Your task to perform on an android device: check android version Image 0: 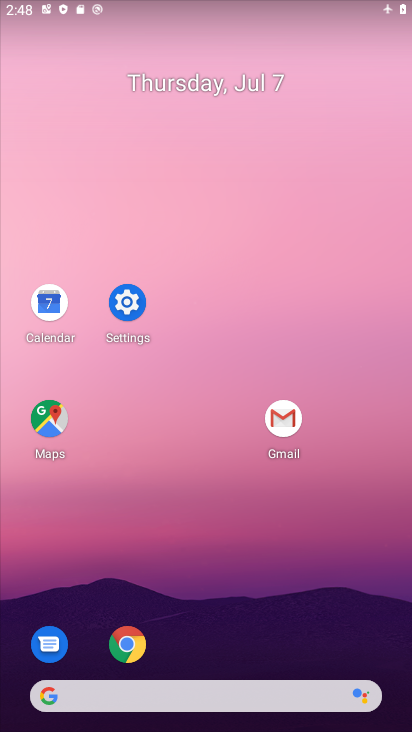
Step 0: click (121, 294)
Your task to perform on an android device: check android version Image 1: 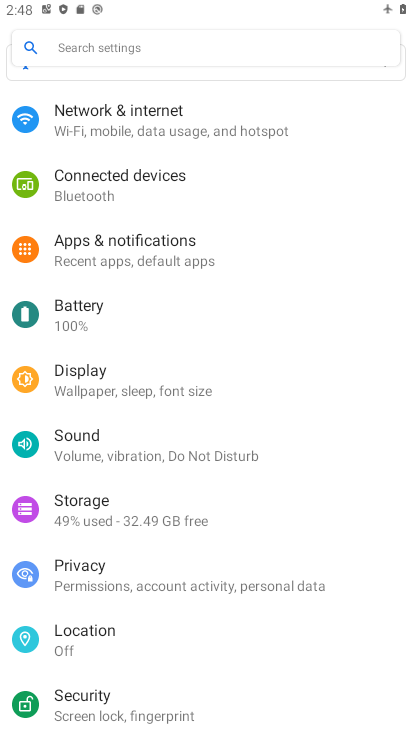
Step 1: drag from (135, 678) to (125, 245)
Your task to perform on an android device: check android version Image 2: 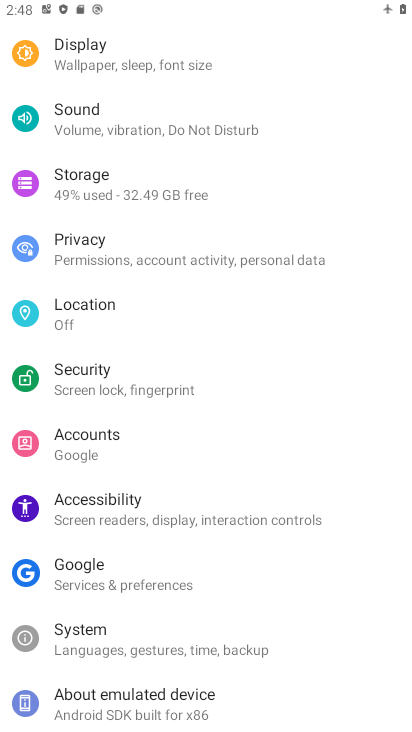
Step 2: click (110, 693)
Your task to perform on an android device: check android version Image 3: 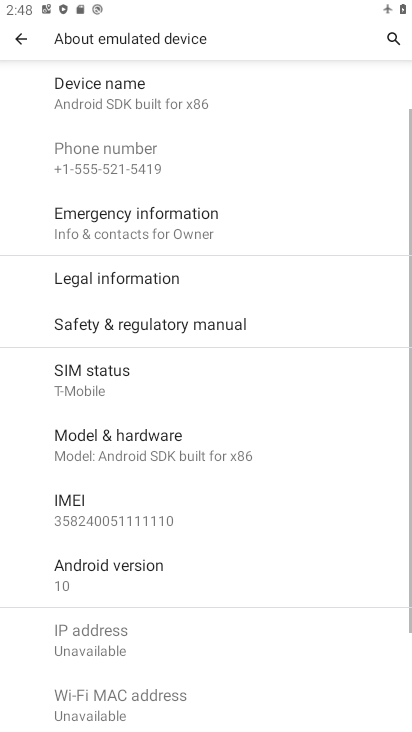
Step 3: drag from (276, 661) to (242, 263)
Your task to perform on an android device: check android version Image 4: 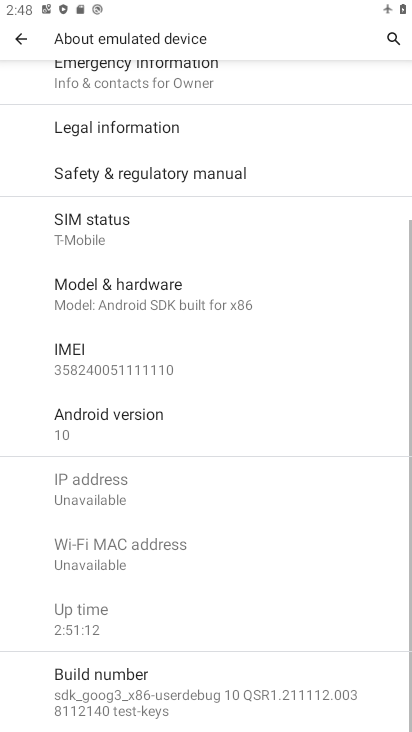
Step 4: drag from (333, 195) to (301, 658)
Your task to perform on an android device: check android version Image 5: 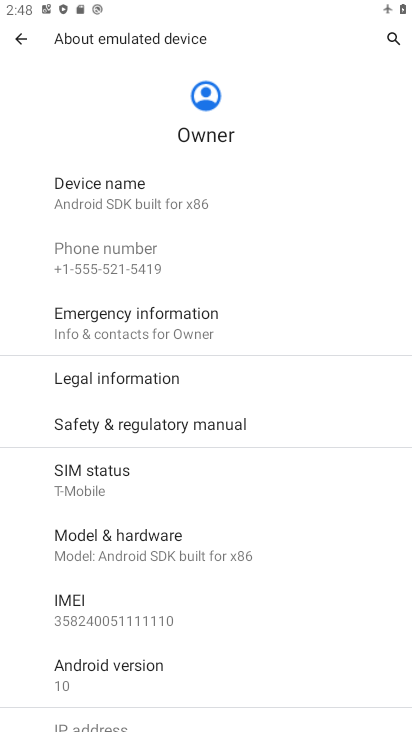
Step 5: drag from (301, 660) to (262, 189)
Your task to perform on an android device: check android version Image 6: 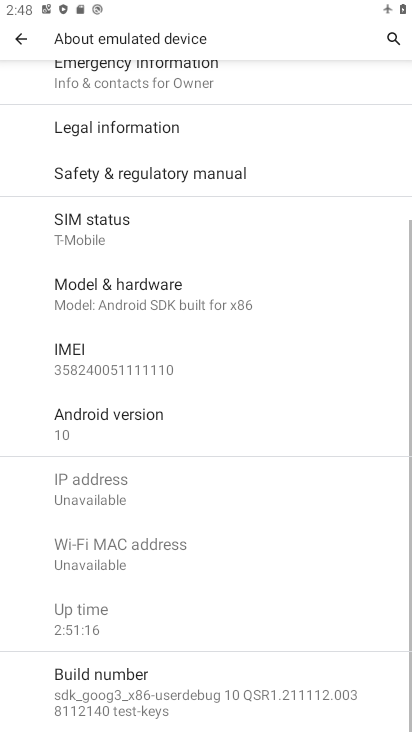
Step 6: click (123, 414)
Your task to perform on an android device: check android version Image 7: 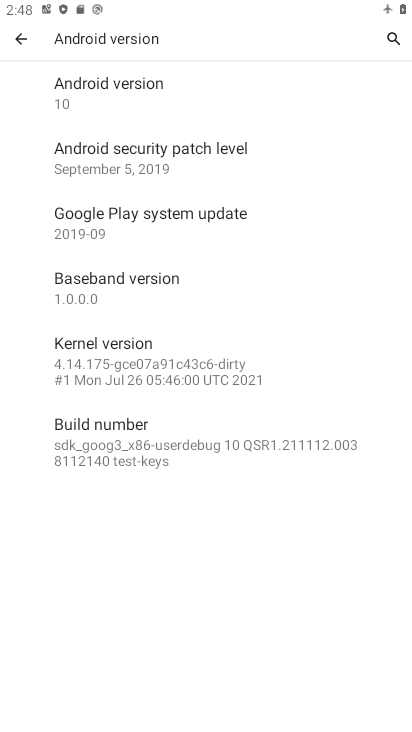
Step 7: task complete